Your task to perform on an android device: turn off notifications settings in the gmail app Image 0: 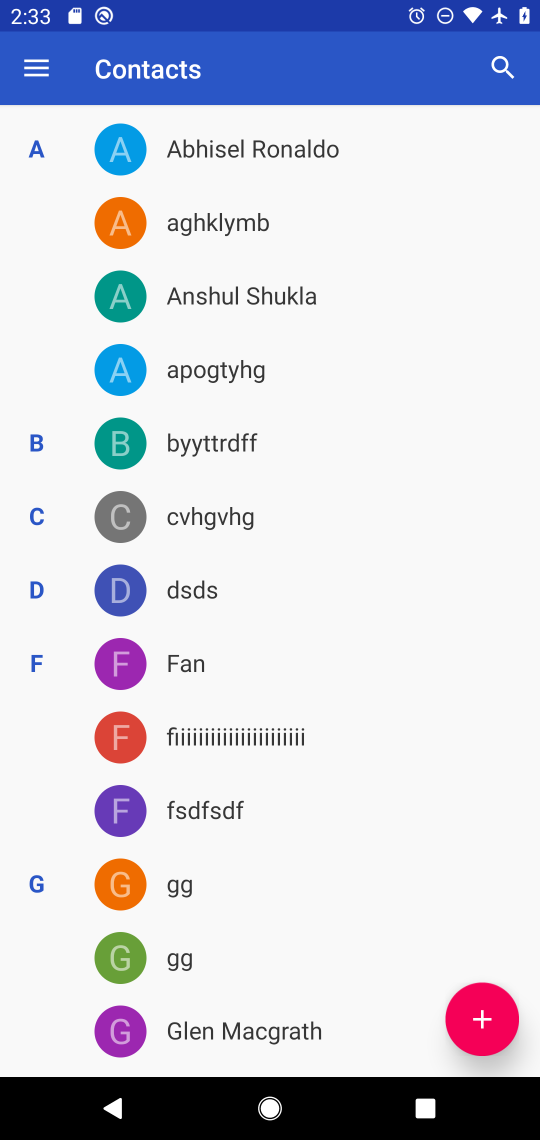
Step 0: press home button
Your task to perform on an android device: turn off notifications settings in the gmail app Image 1: 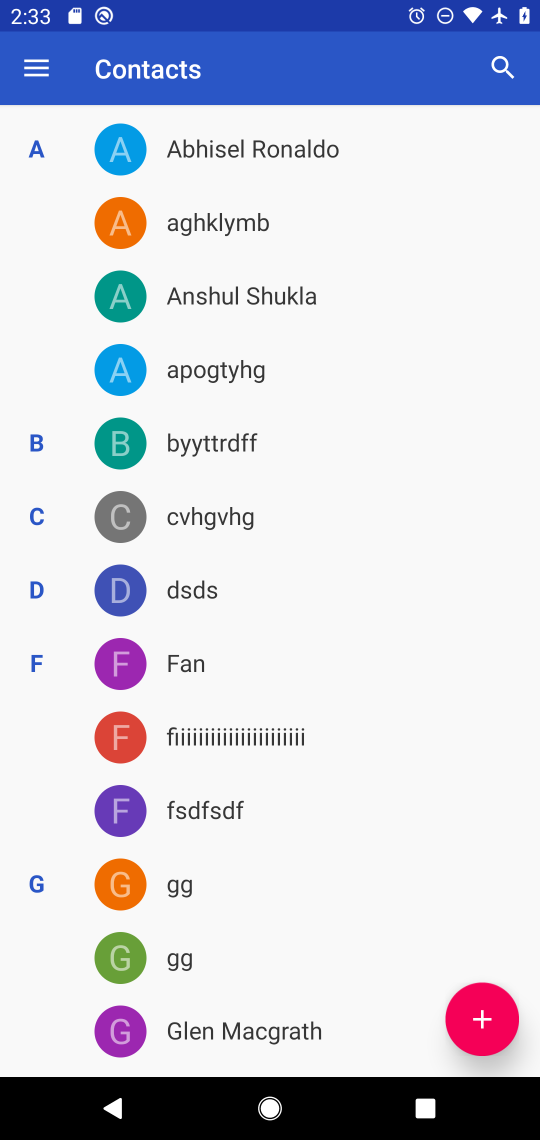
Step 1: press home button
Your task to perform on an android device: turn off notifications settings in the gmail app Image 2: 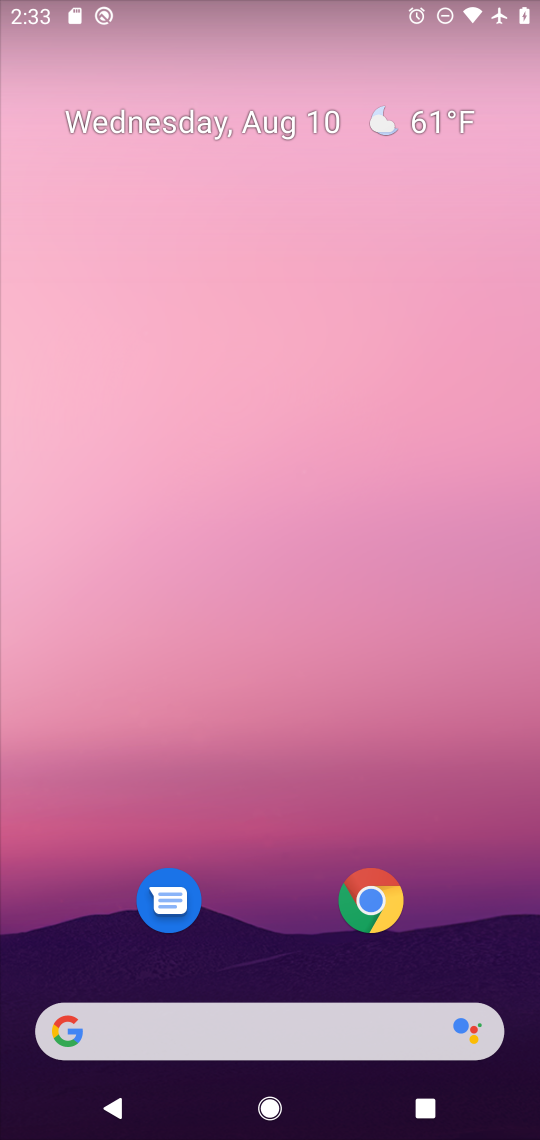
Step 2: drag from (295, 916) to (350, 0)
Your task to perform on an android device: turn off notifications settings in the gmail app Image 3: 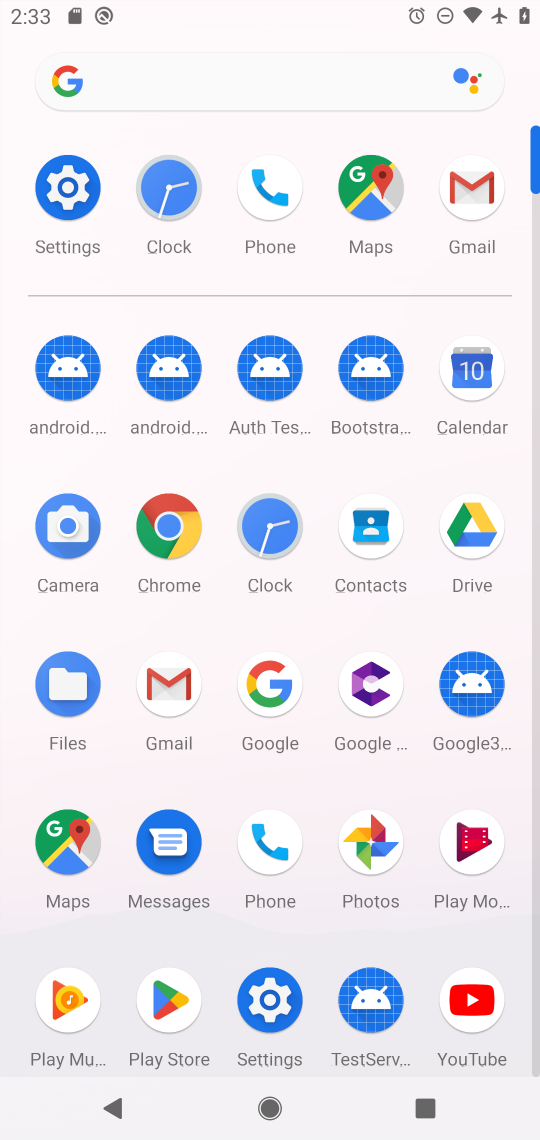
Step 3: click (466, 172)
Your task to perform on an android device: turn off notifications settings in the gmail app Image 4: 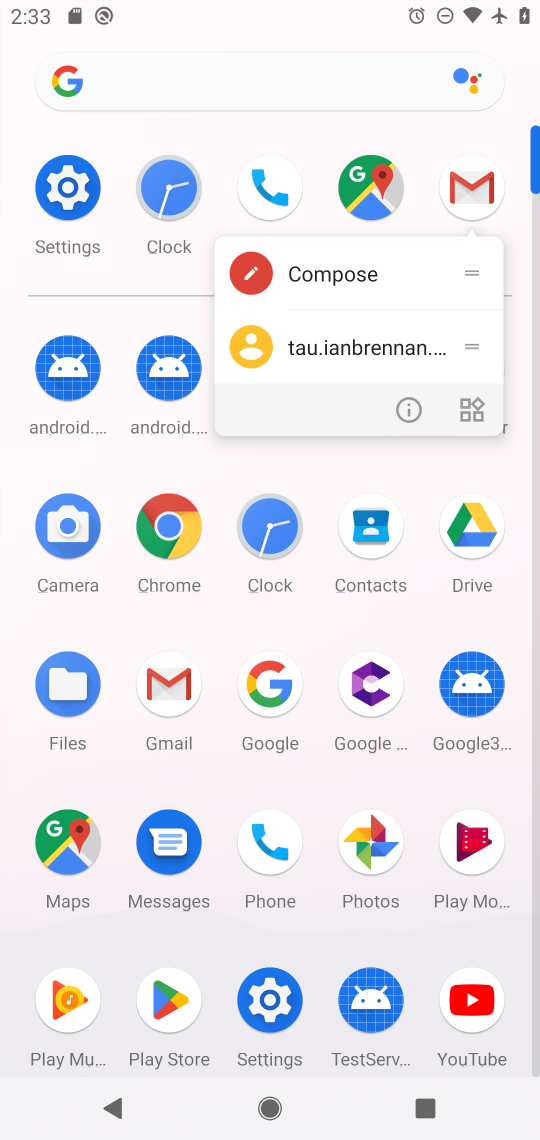
Step 4: click (466, 172)
Your task to perform on an android device: turn off notifications settings in the gmail app Image 5: 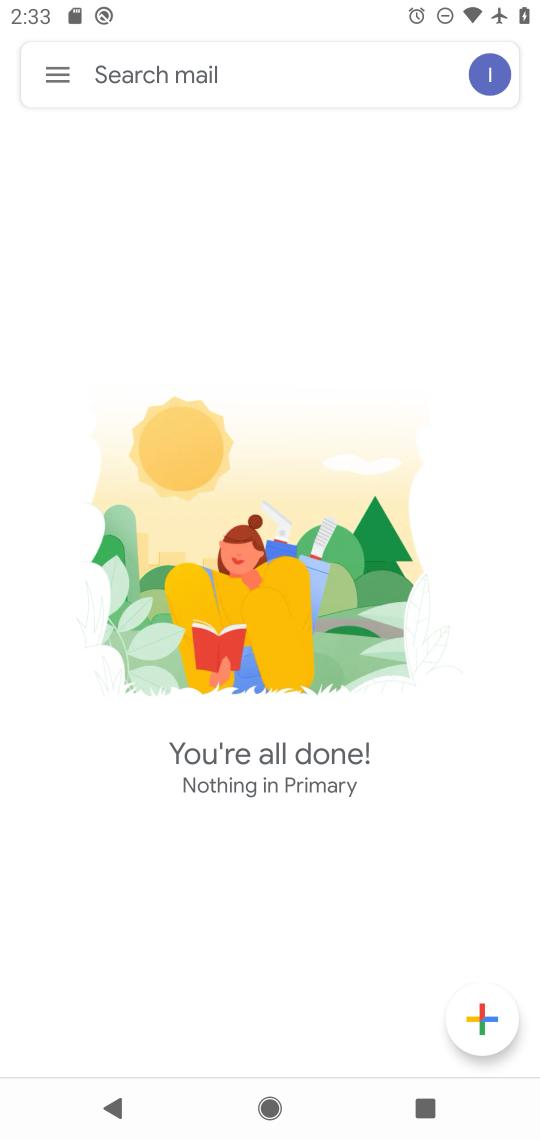
Step 5: press home button
Your task to perform on an android device: turn off notifications settings in the gmail app Image 6: 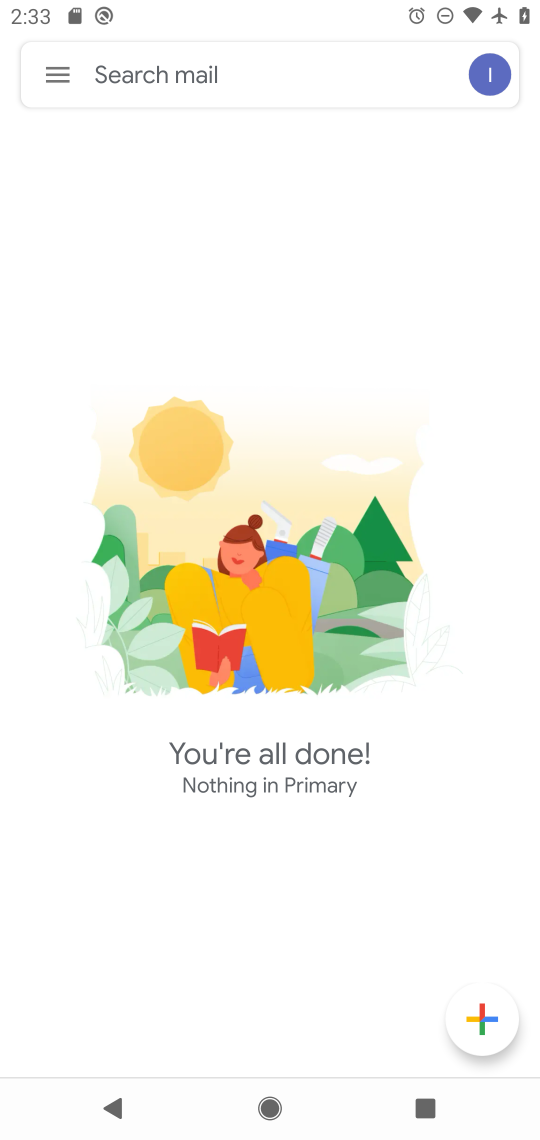
Step 6: press home button
Your task to perform on an android device: turn off notifications settings in the gmail app Image 7: 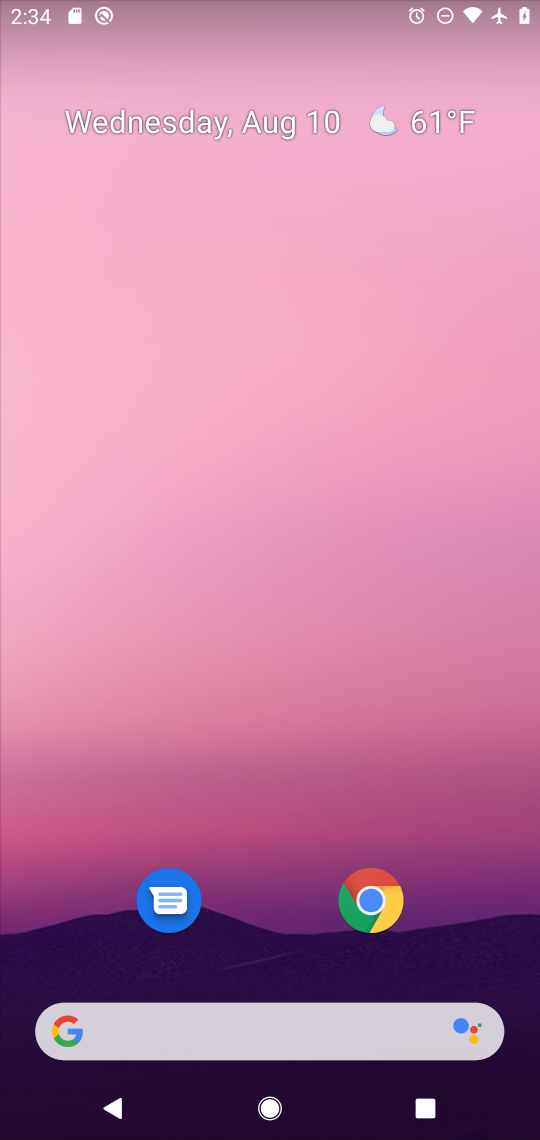
Step 7: drag from (271, 914) to (283, 0)
Your task to perform on an android device: turn off notifications settings in the gmail app Image 8: 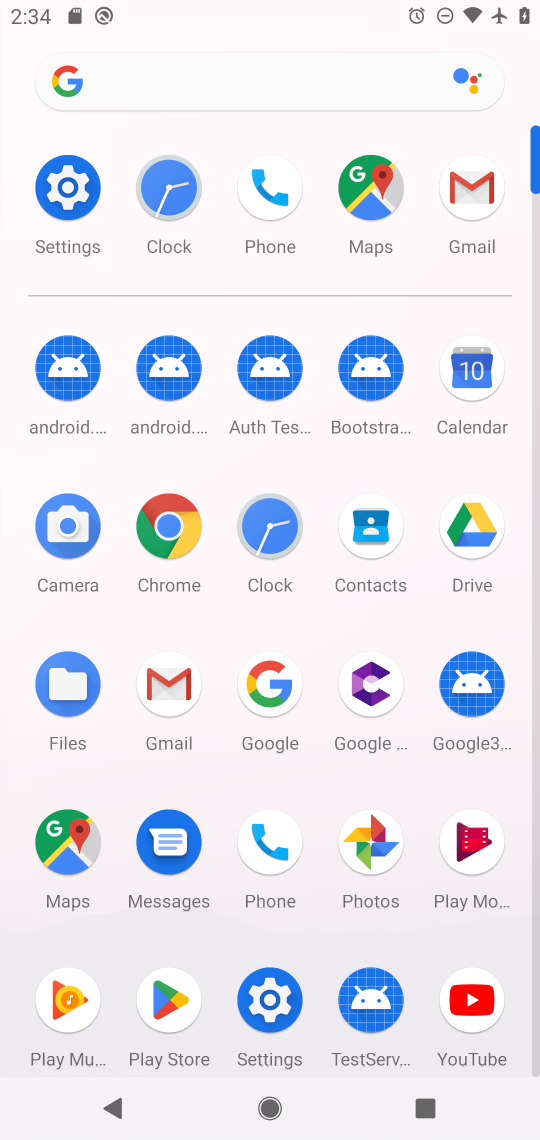
Step 8: click (478, 181)
Your task to perform on an android device: turn off notifications settings in the gmail app Image 9: 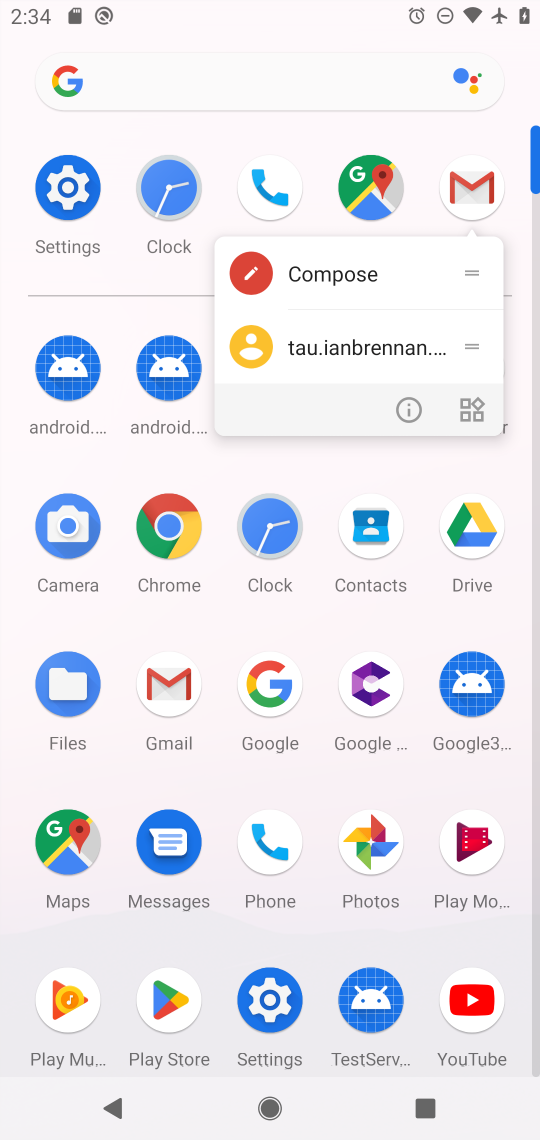
Step 9: click (478, 181)
Your task to perform on an android device: turn off notifications settings in the gmail app Image 10: 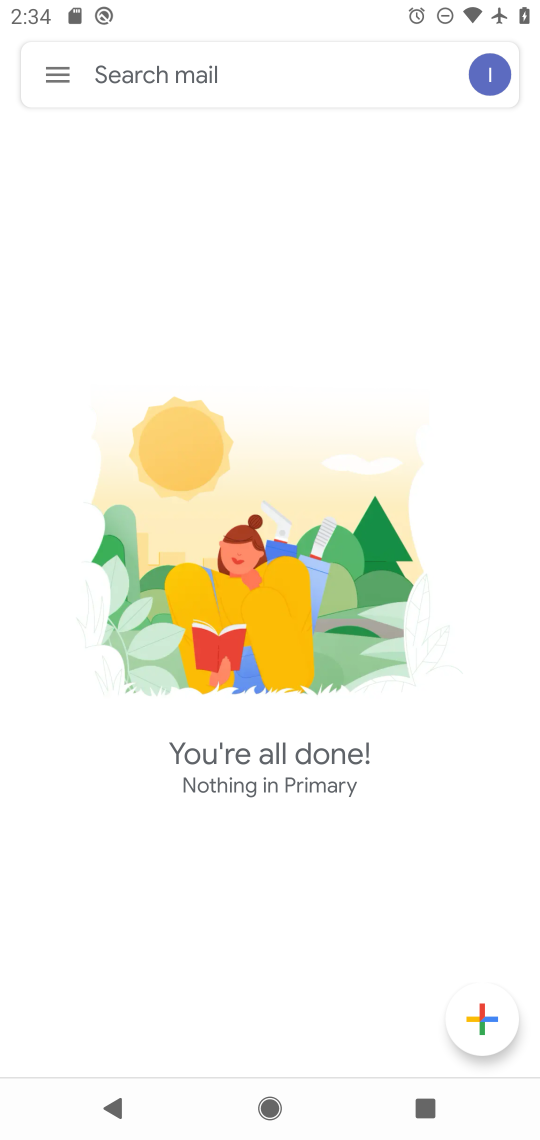
Step 10: click (57, 74)
Your task to perform on an android device: turn off notifications settings in the gmail app Image 11: 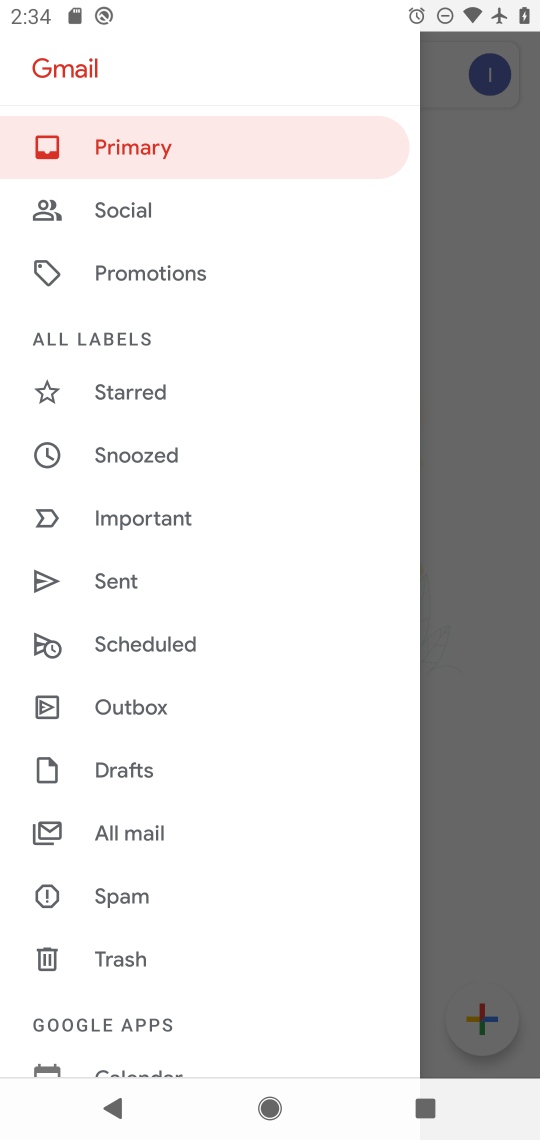
Step 11: drag from (178, 905) to (221, 403)
Your task to perform on an android device: turn off notifications settings in the gmail app Image 12: 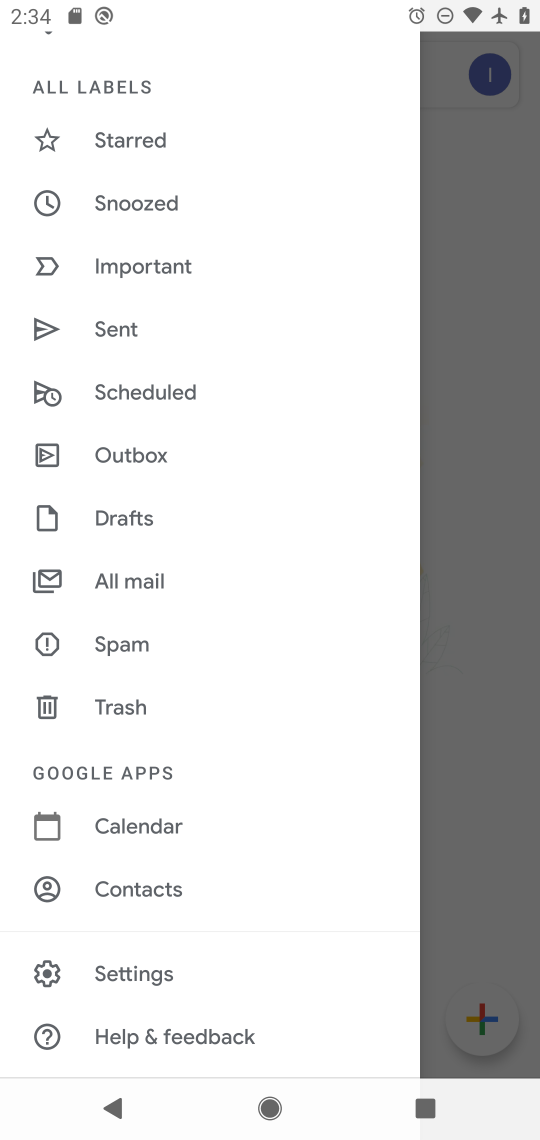
Step 12: click (158, 965)
Your task to perform on an android device: turn off notifications settings in the gmail app Image 13: 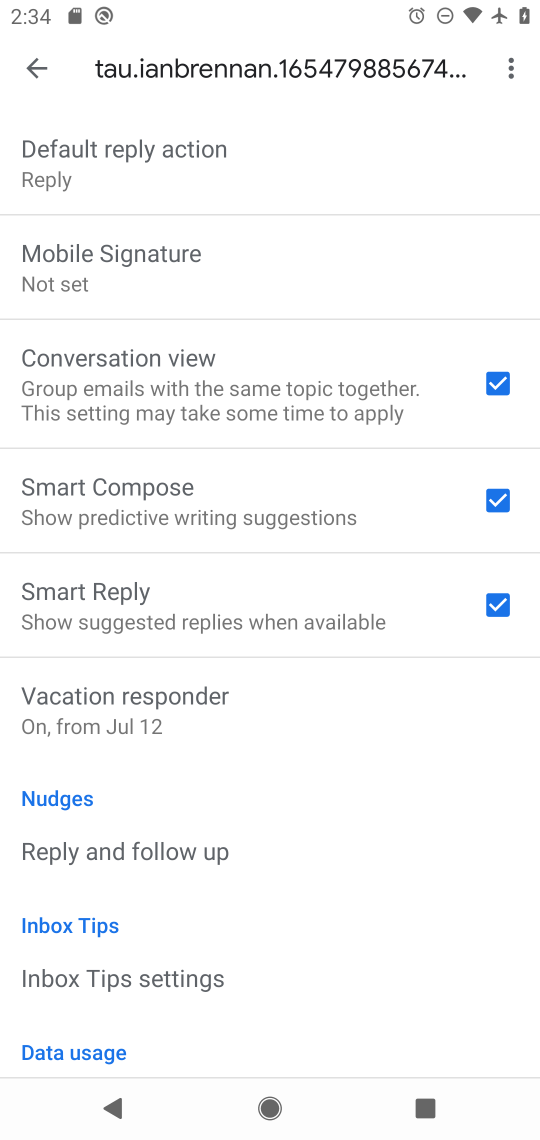
Step 13: click (267, 327)
Your task to perform on an android device: turn off notifications settings in the gmail app Image 14: 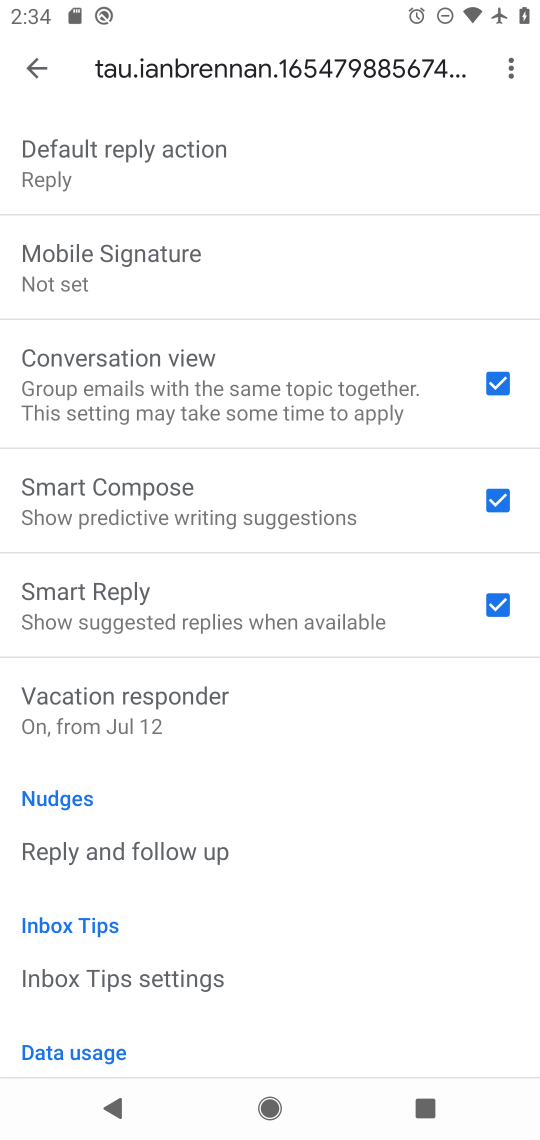
Step 14: drag from (273, 459) to (298, 852)
Your task to perform on an android device: turn off notifications settings in the gmail app Image 15: 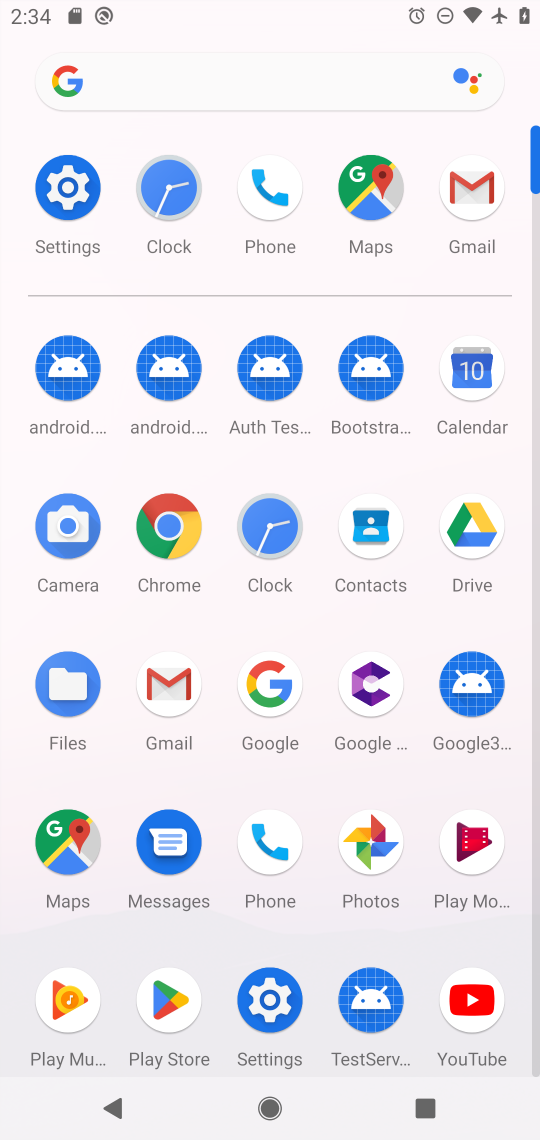
Step 15: click (460, 182)
Your task to perform on an android device: turn off notifications settings in the gmail app Image 16: 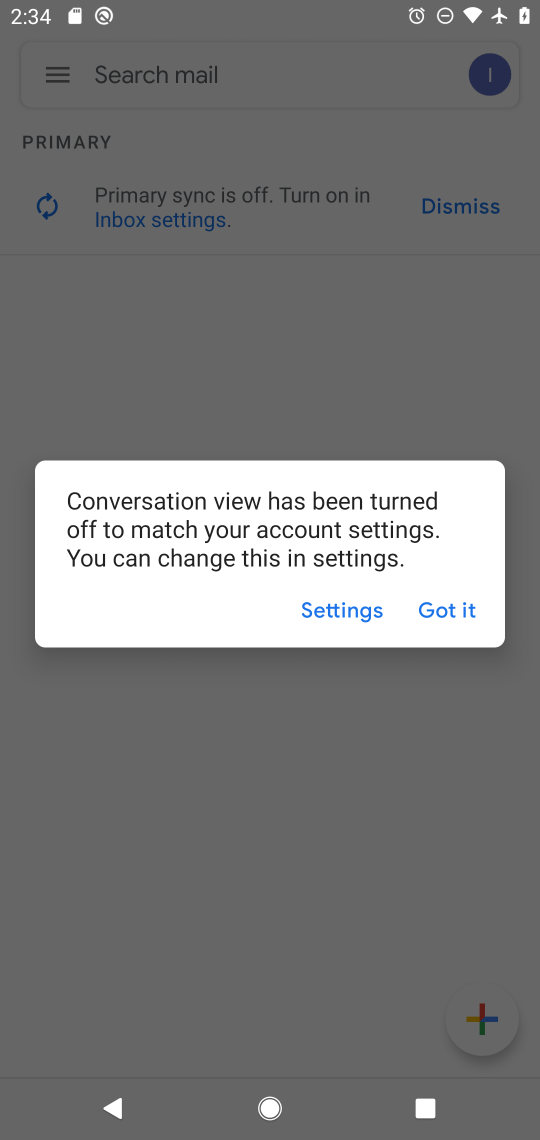
Step 16: click (439, 603)
Your task to perform on an android device: turn off notifications settings in the gmail app Image 17: 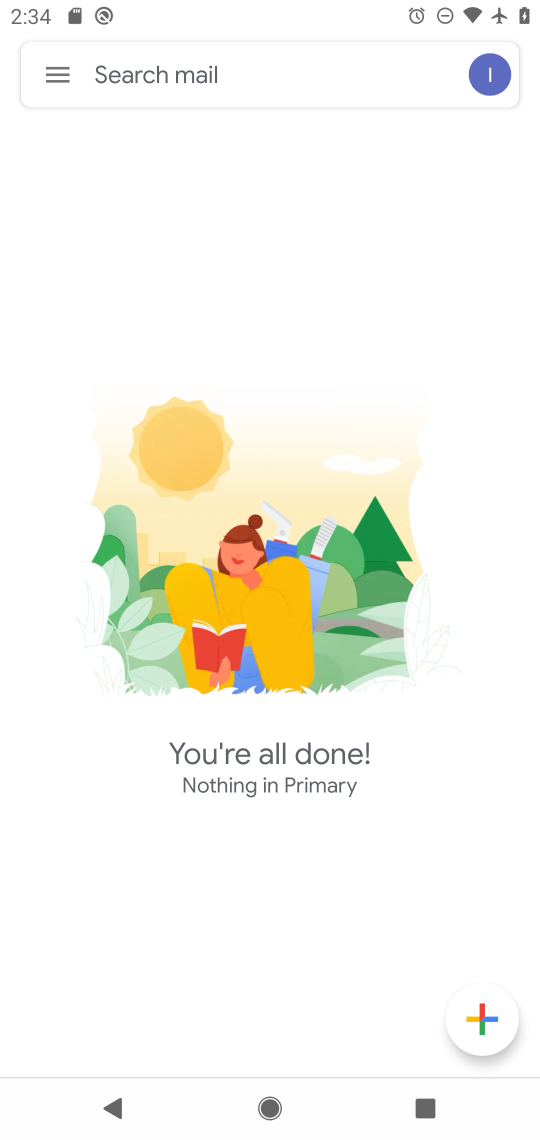
Step 17: click (58, 74)
Your task to perform on an android device: turn off notifications settings in the gmail app Image 18: 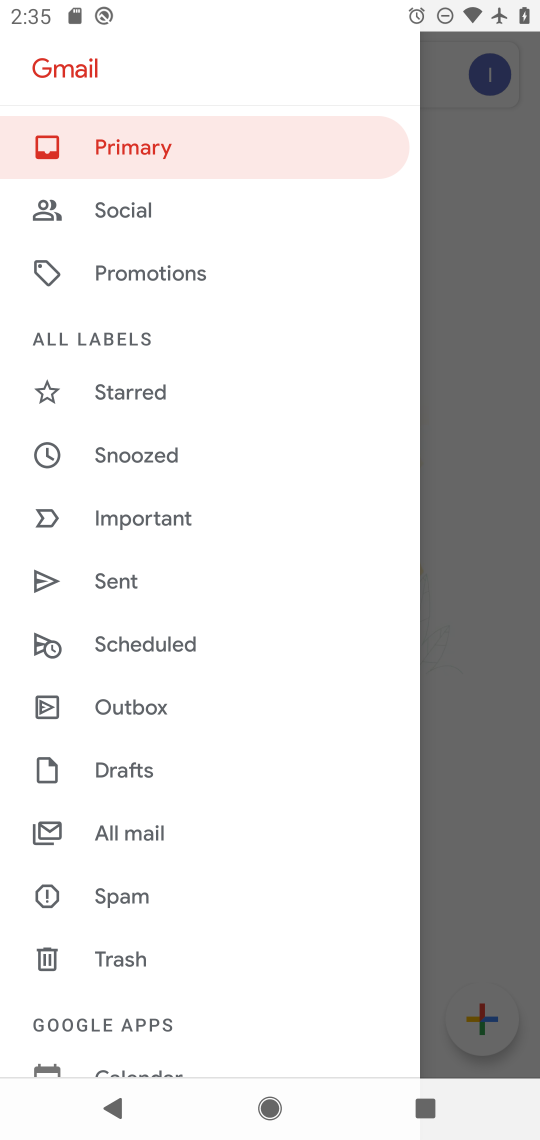
Step 18: drag from (236, 751) to (226, 258)
Your task to perform on an android device: turn off notifications settings in the gmail app Image 19: 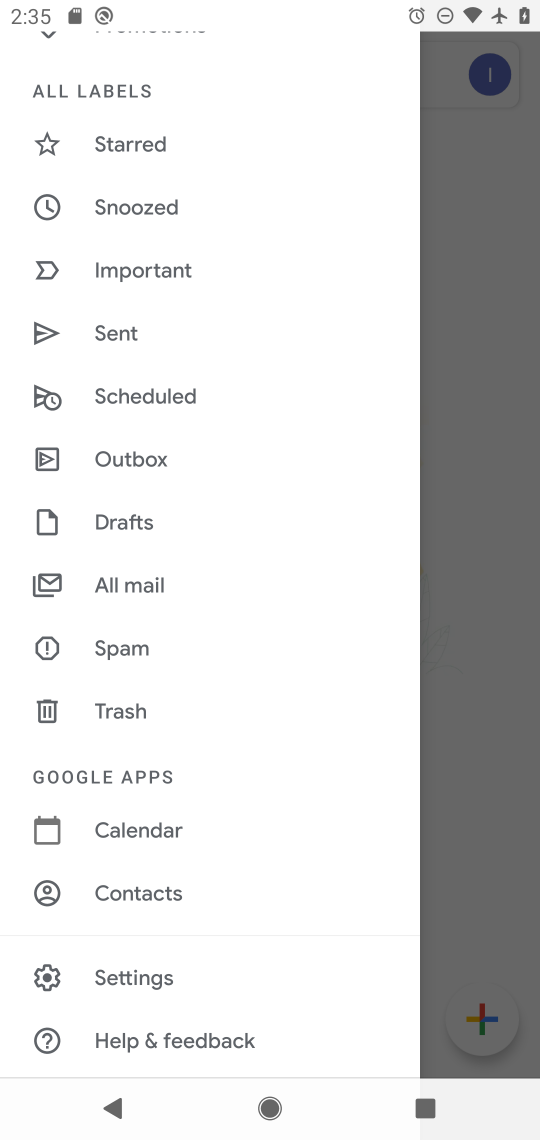
Step 19: click (169, 974)
Your task to perform on an android device: turn off notifications settings in the gmail app Image 20: 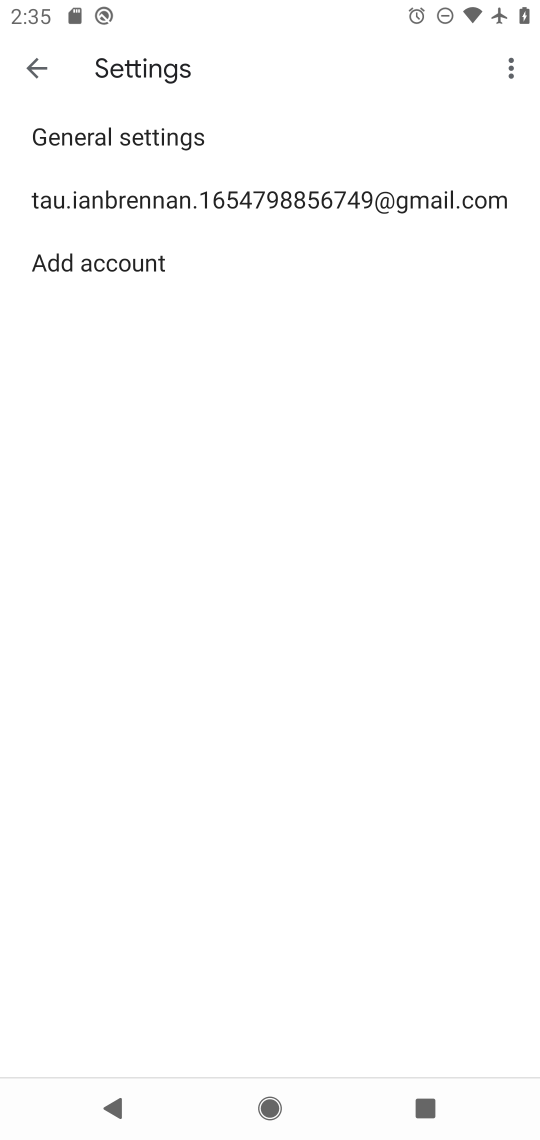
Step 20: click (376, 191)
Your task to perform on an android device: turn off notifications settings in the gmail app Image 21: 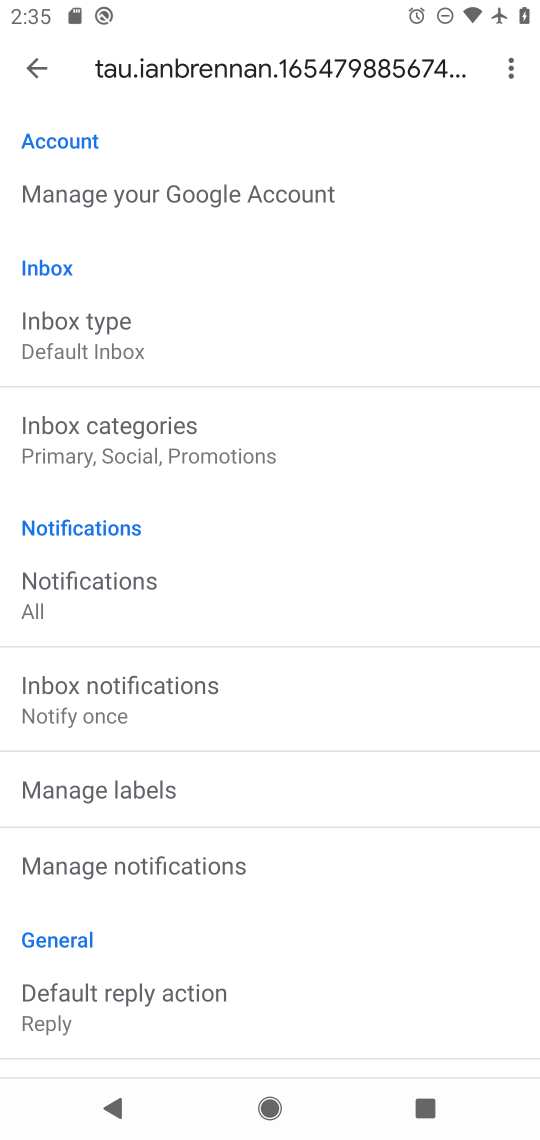
Step 21: click (322, 875)
Your task to perform on an android device: turn off notifications settings in the gmail app Image 22: 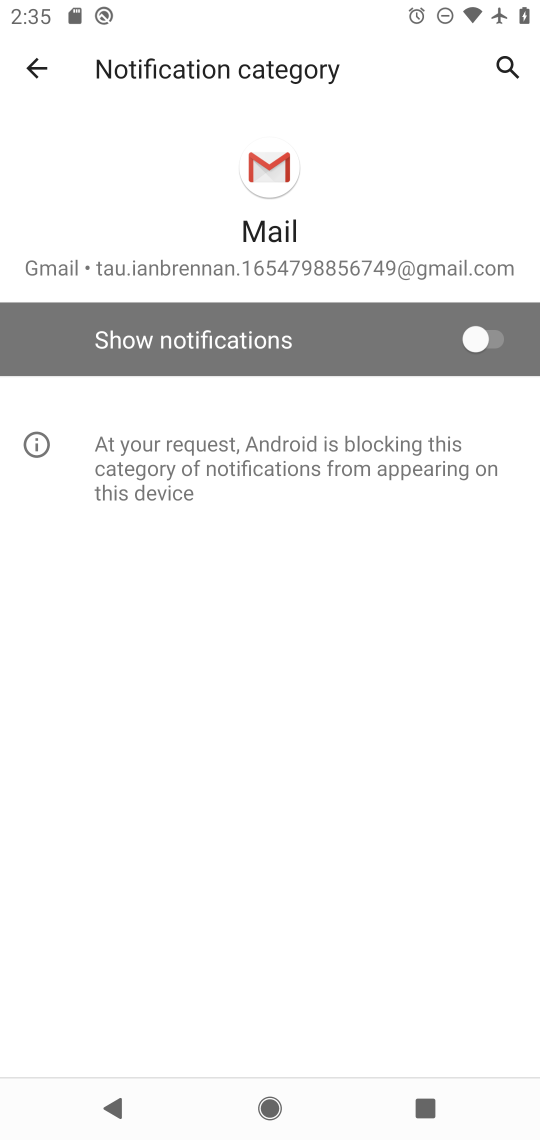
Step 22: task complete